Your task to perform on an android device: Search for seafood restaurants on Google Maps Image 0: 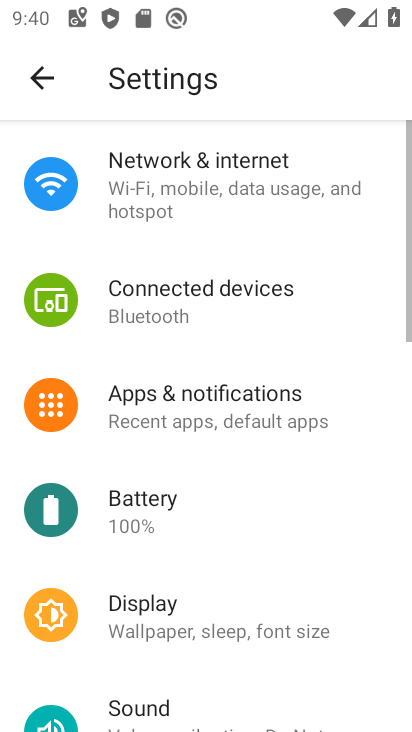
Step 0: press home button
Your task to perform on an android device: Search for seafood restaurants on Google Maps Image 1: 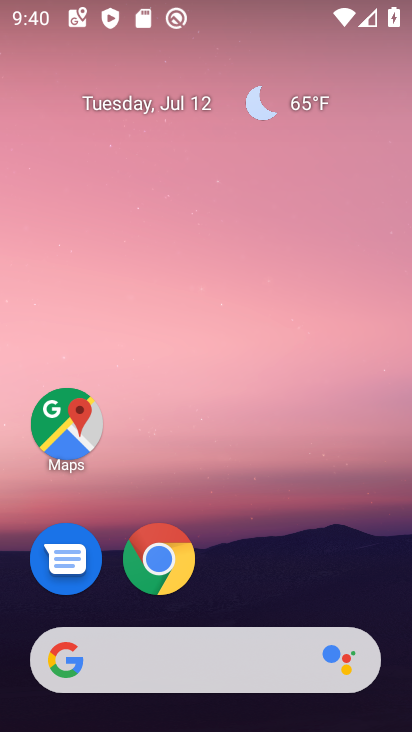
Step 1: drag from (331, 597) to (329, 172)
Your task to perform on an android device: Search for seafood restaurants on Google Maps Image 2: 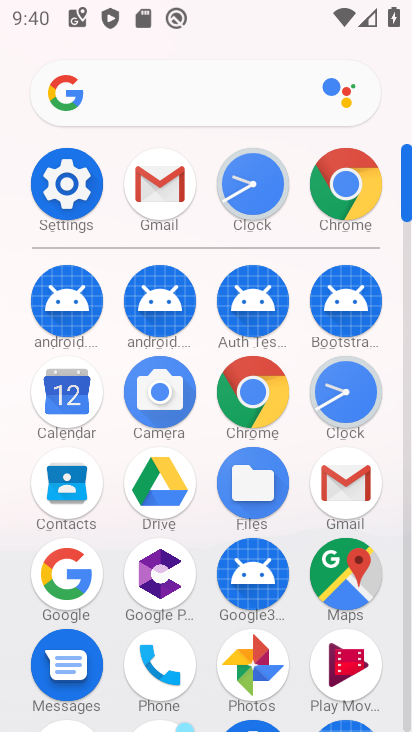
Step 2: click (365, 582)
Your task to perform on an android device: Search for seafood restaurants on Google Maps Image 3: 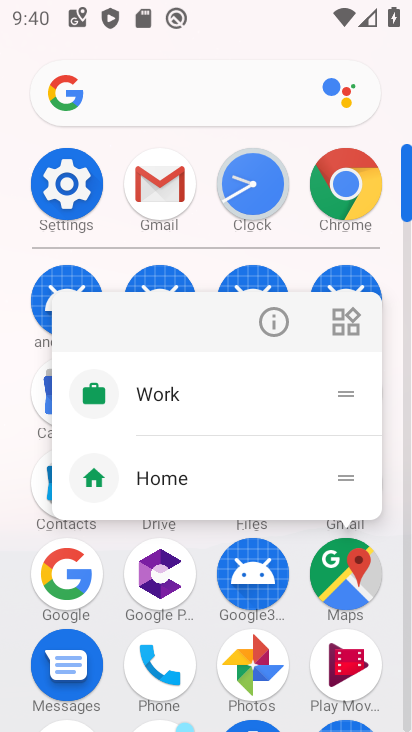
Step 3: click (336, 567)
Your task to perform on an android device: Search for seafood restaurants on Google Maps Image 4: 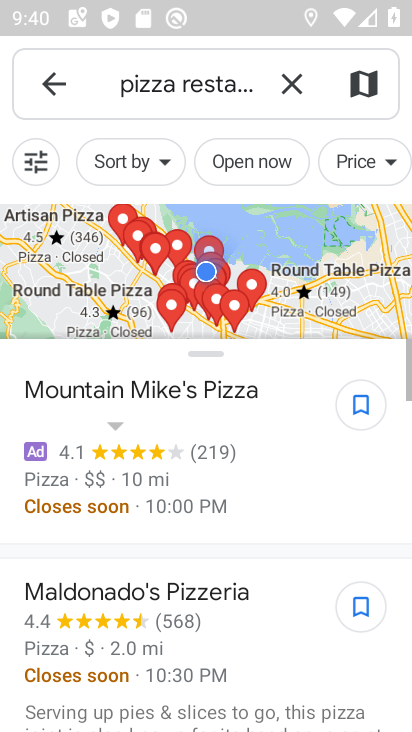
Step 4: press back button
Your task to perform on an android device: Search for seafood restaurants on Google Maps Image 5: 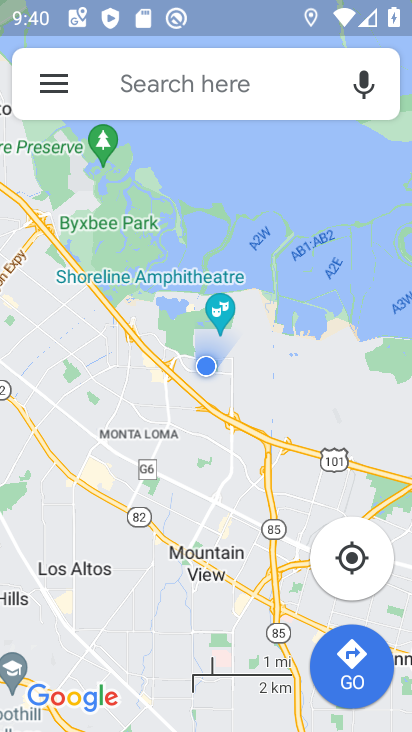
Step 5: click (178, 86)
Your task to perform on an android device: Search for seafood restaurants on Google Maps Image 6: 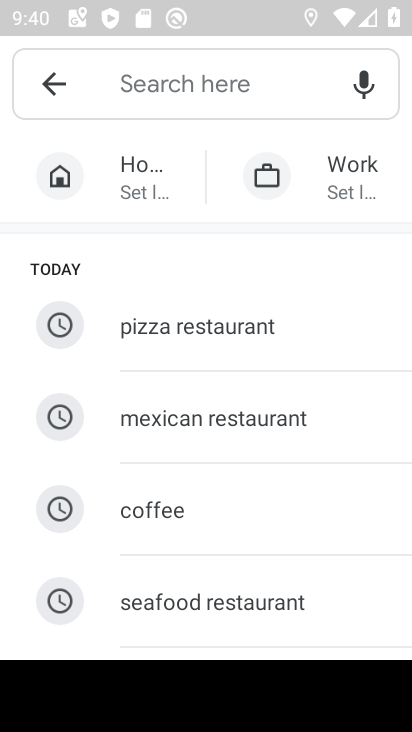
Step 6: type "seafood restaurants"
Your task to perform on an android device: Search for seafood restaurants on Google Maps Image 7: 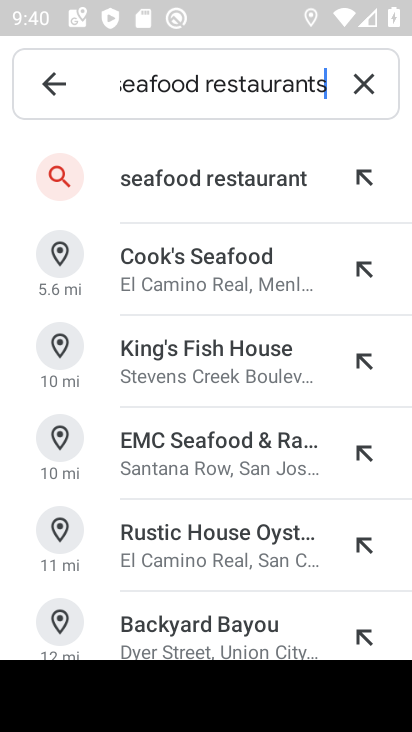
Step 7: click (254, 197)
Your task to perform on an android device: Search for seafood restaurants on Google Maps Image 8: 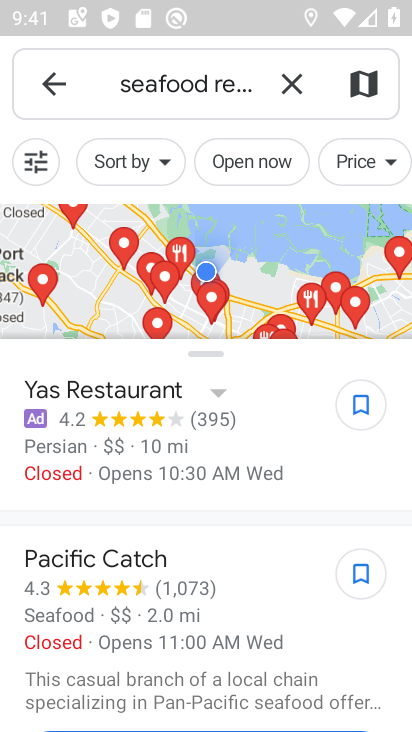
Step 8: task complete